Your task to perform on an android device: toggle javascript in the chrome app Image 0: 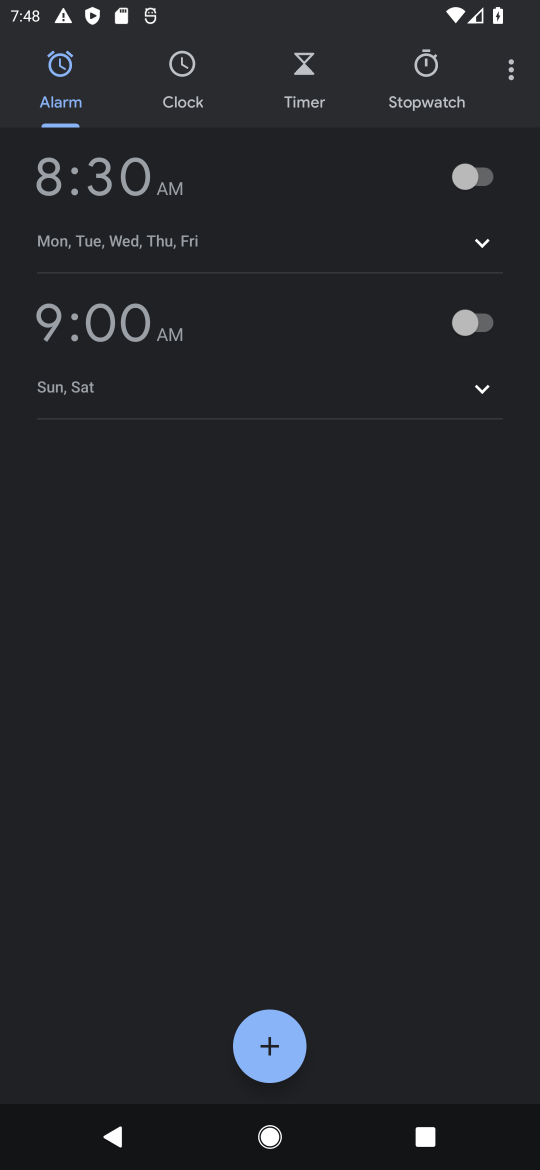
Step 0: press home button
Your task to perform on an android device: toggle javascript in the chrome app Image 1: 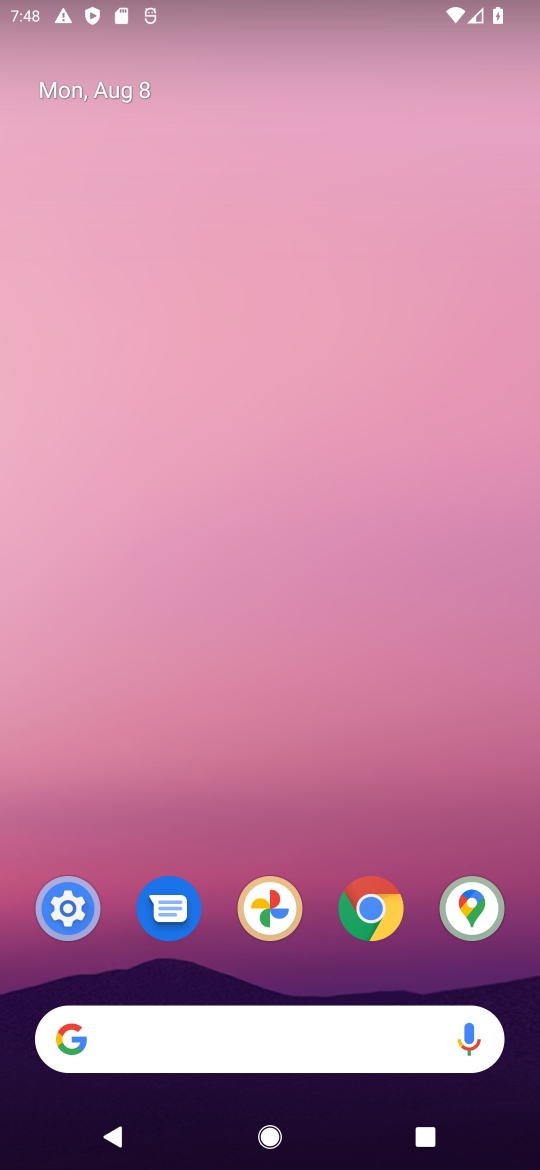
Step 1: click (362, 888)
Your task to perform on an android device: toggle javascript in the chrome app Image 2: 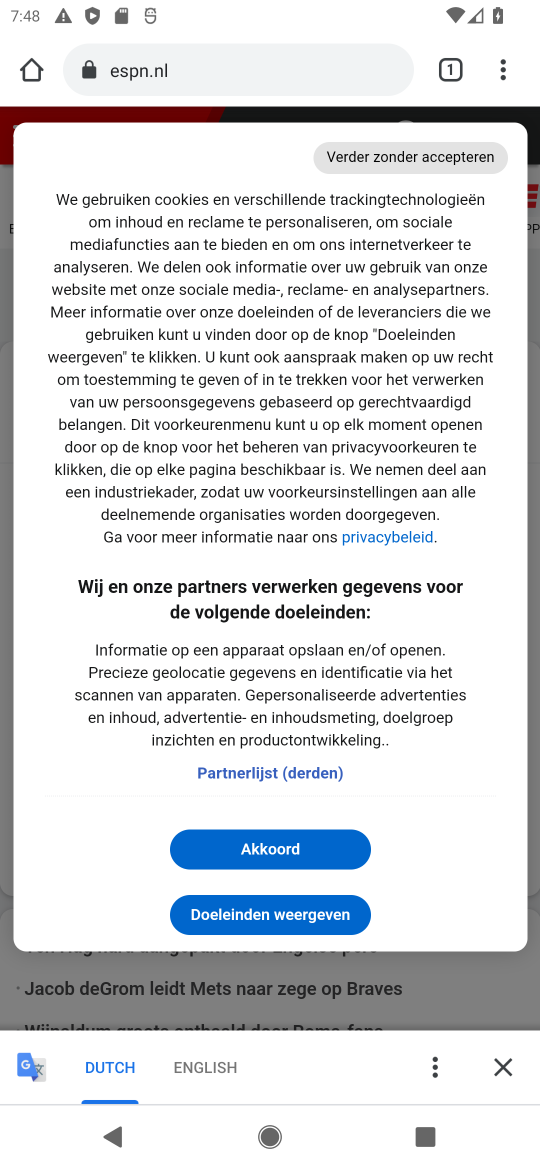
Step 2: click (494, 63)
Your task to perform on an android device: toggle javascript in the chrome app Image 3: 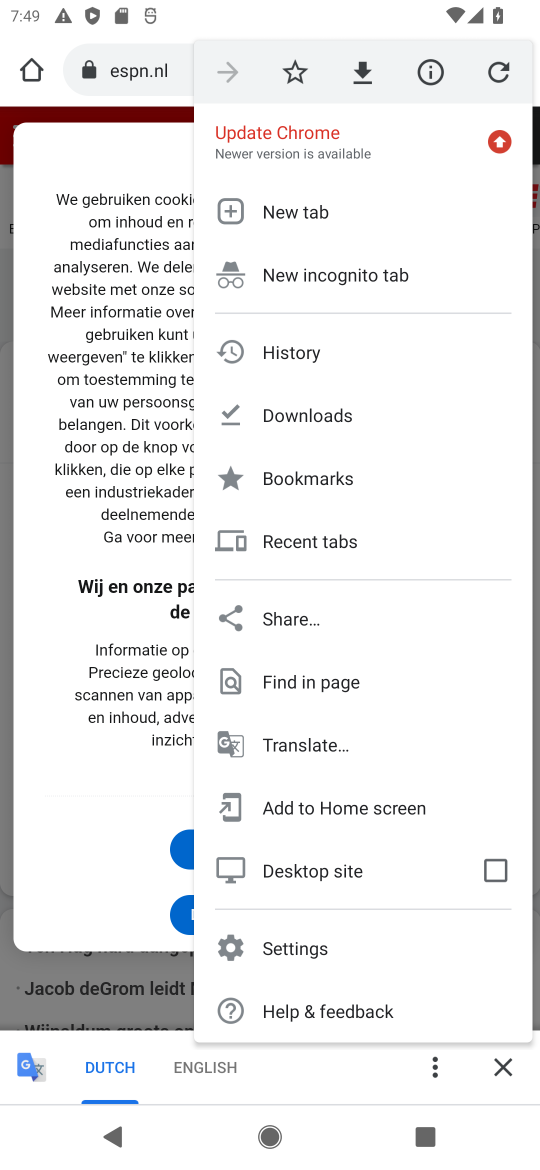
Step 3: click (412, 953)
Your task to perform on an android device: toggle javascript in the chrome app Image 4: 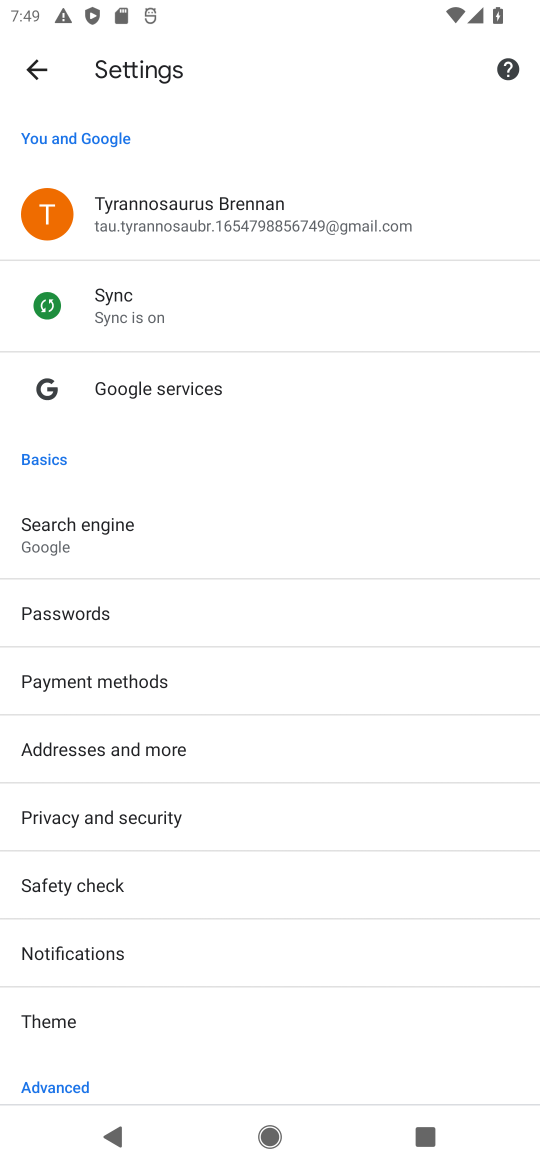
Step 4: drag from (218, 1041) to (343, 103)
Your task to perform on an android device: toggle javascript in the chrome app Image 5: 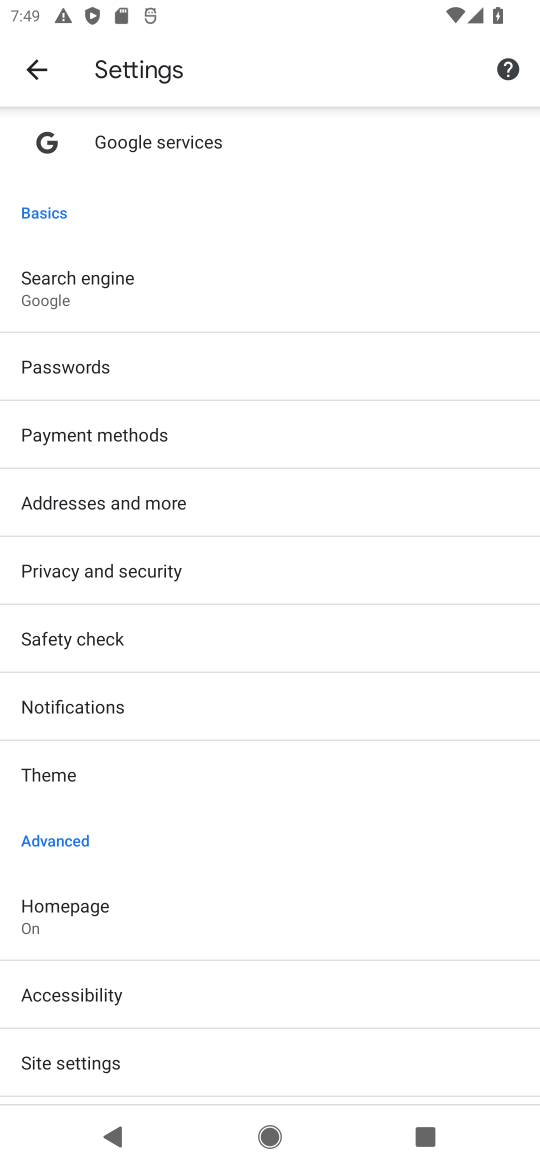
Step 5: drag from (274, 1088) to (297, 234)
Your task to perform on an android device: toggle javascript in the chrome app Image 6: 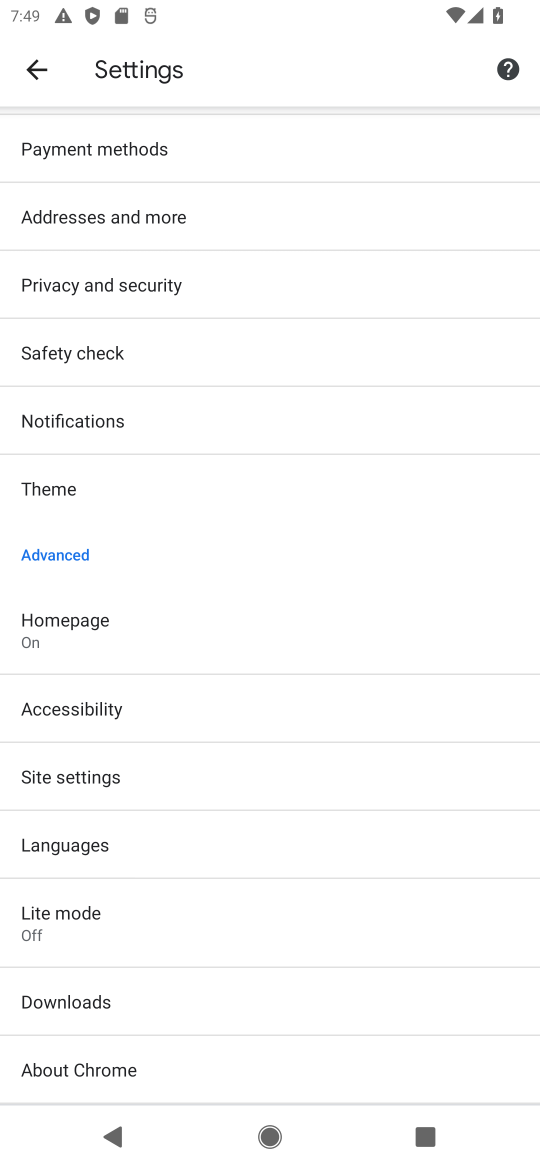
Step 6: click (197, 753)
Your task to perform on an android device: toggle javascript in the chrome app Image 7: 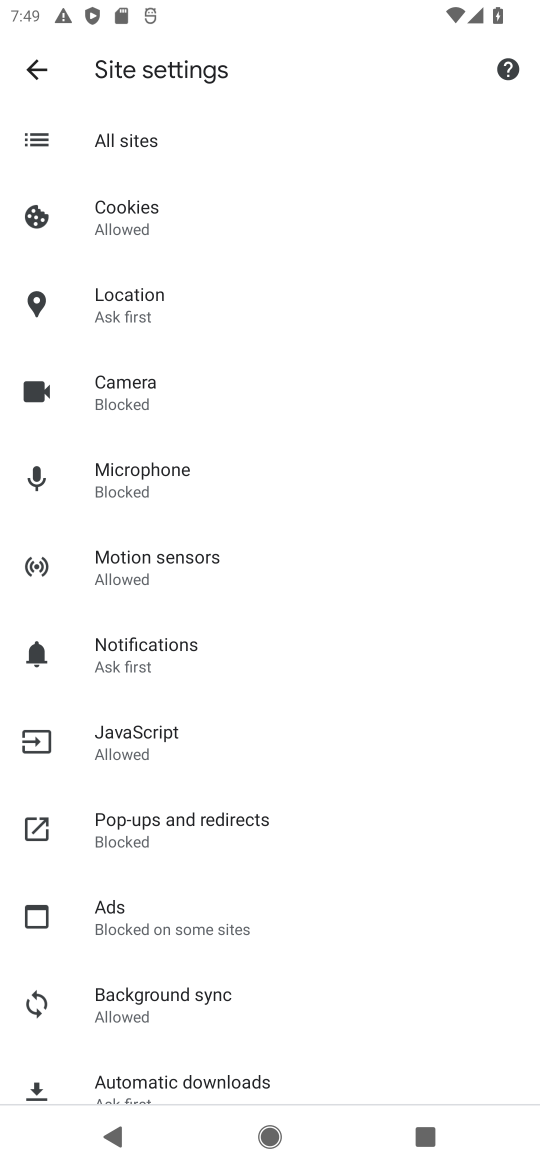
Step 7: click (175, 762)
Your task to perform on an android device: toggle javascript in the chrome app Image 8: 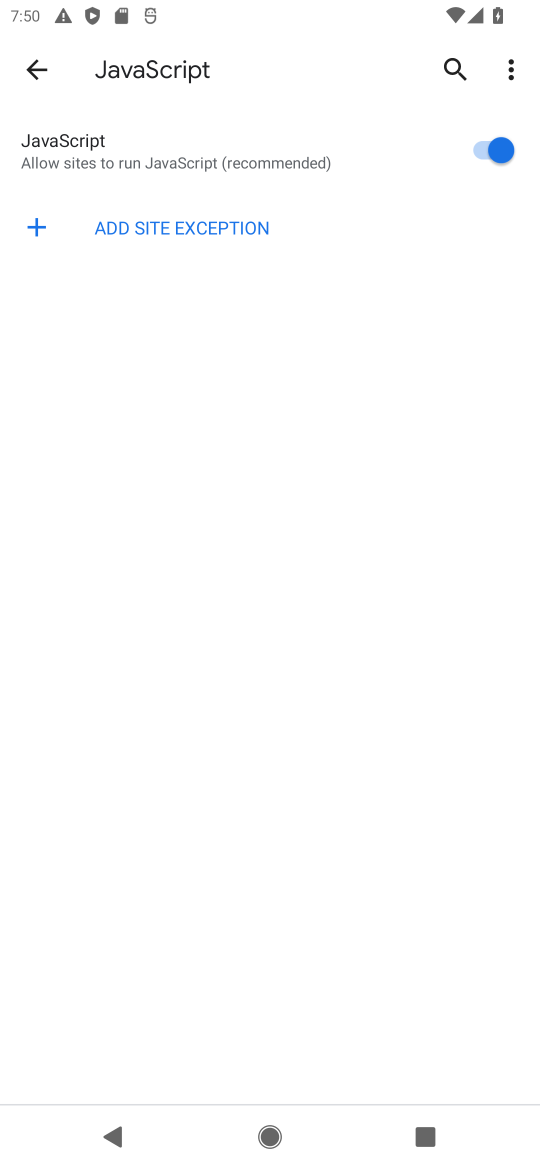
Step 8: click (497, 129)
Your task to perform on an android device: toggle javascript in the chrome app Image 9: 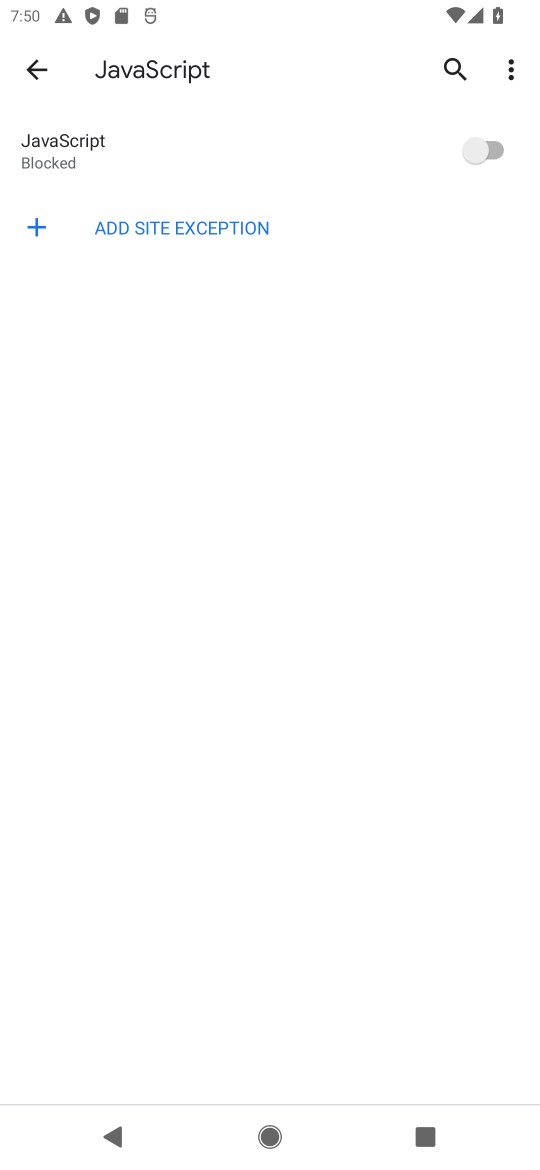
Step 9: click (480, 137)
Your task to perform on an android device: toggle javascript in the chrome app Image 10: 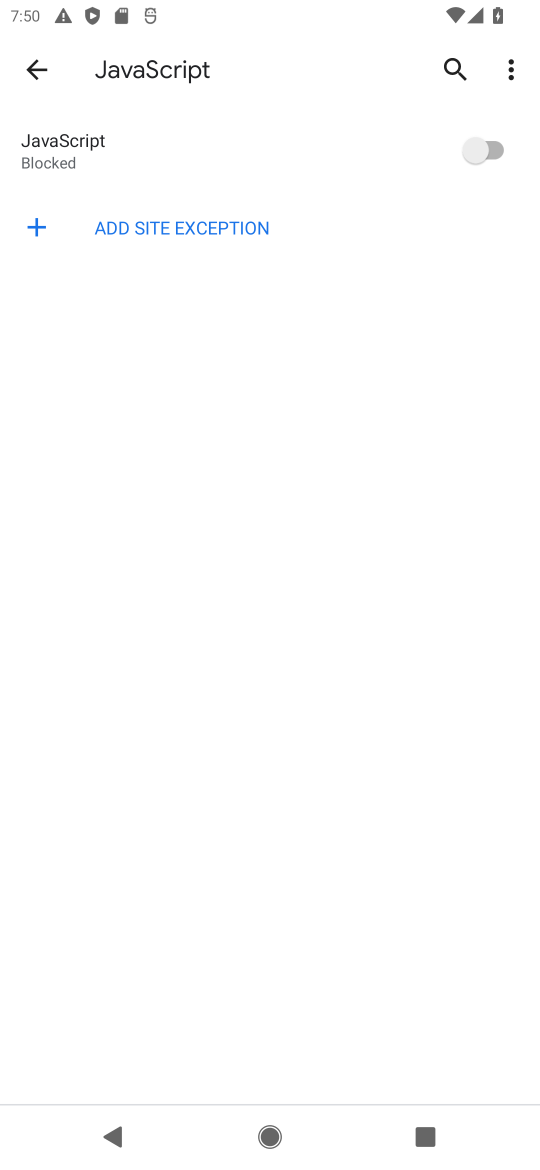
Step 10: click (480, 137)
Your task to perform on an android device: toggle javascript in the chrome app Image 11: 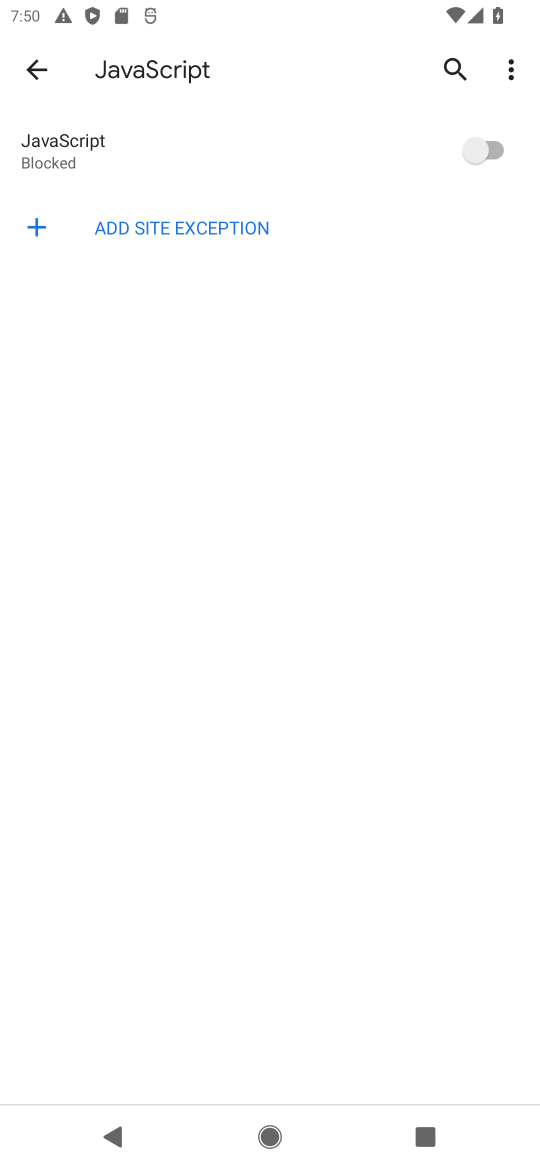
Step 11: click (489, 154)
Your task to perform on an android device: toggle javascript in the chrome app Image 12: 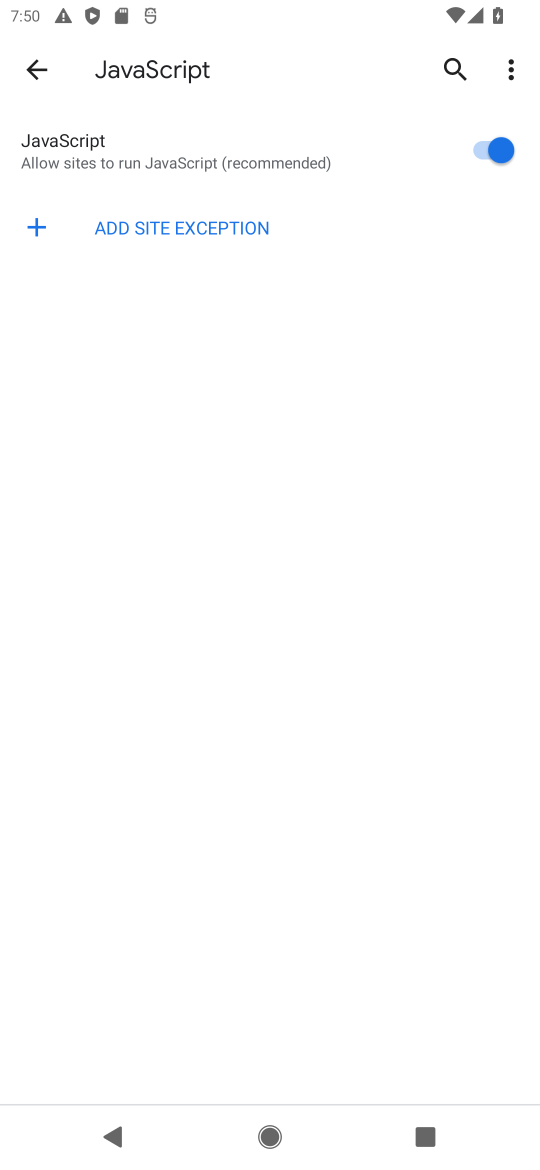
Step 12: task complete